Your task to perform on an android device: Open network settings Image 0: 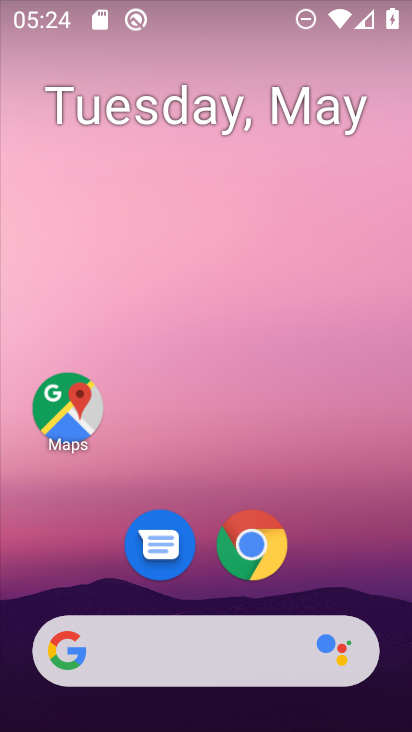
Step 0: drag from (338, 498) to (275, 37)
Your task to perform on an android device: Open network settings Image 1: 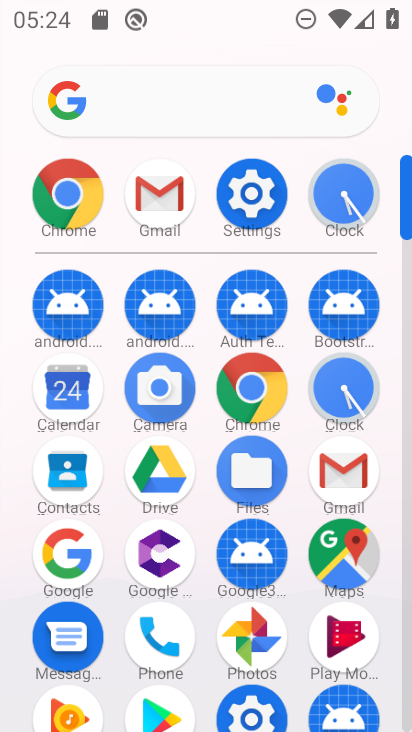
Step 1: drag from (7, 616) to (10, 291)
Your task to perform on an android device: Open network settings Image 2: 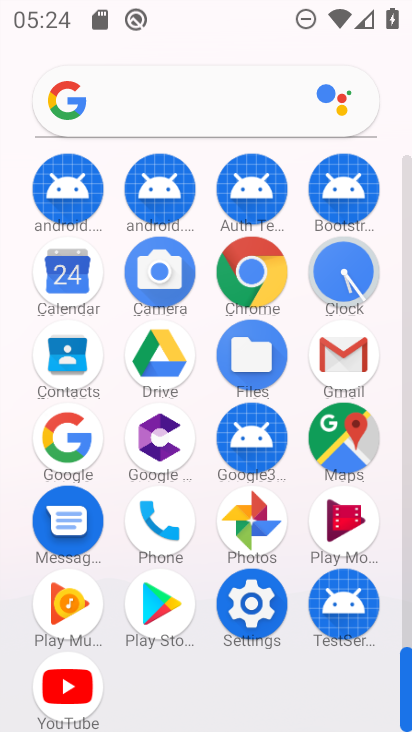
Step 2: click (250, 606)
Your task to perform on an android device: Open network settings Image 3: 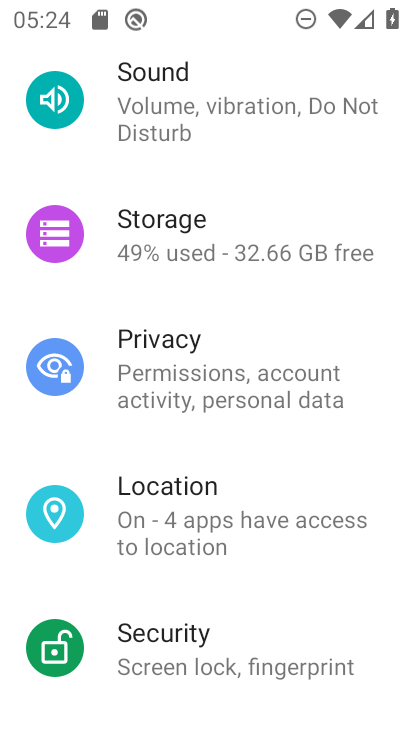
Step 3: drag from (225, 223) to (250, 635)
Your task to perform on an android device: Open network settings Image 4: 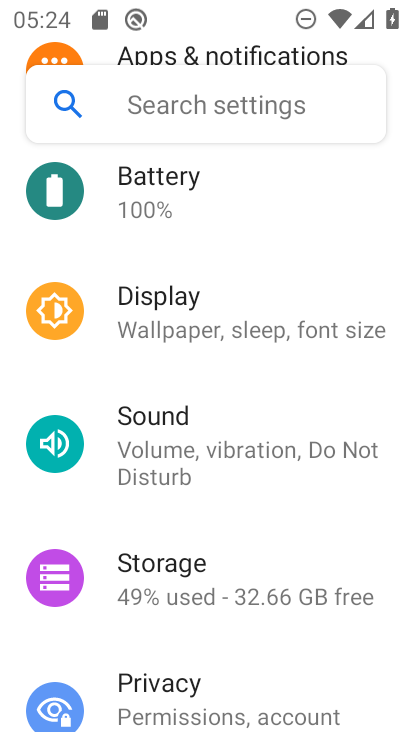
Step 4: drag from (275, 278) to (275, 521)
Your task to perform on an android device: Open network settings Image 5: 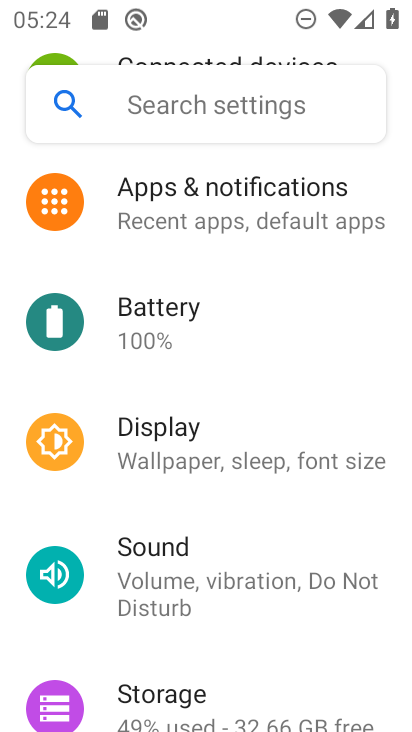
Step 5: drag from (239, 222) to (264, 604)
Your task to perform on an android device: Open network settings Image 6: 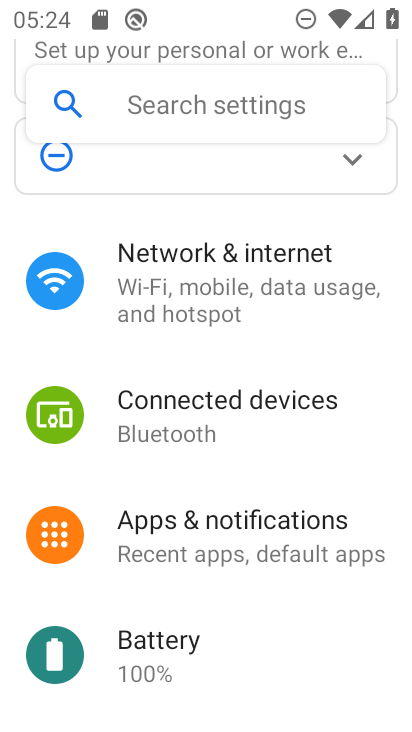
Step 6: click (276, 291)
Your task to perform on an android device: Open network settings Image 7: 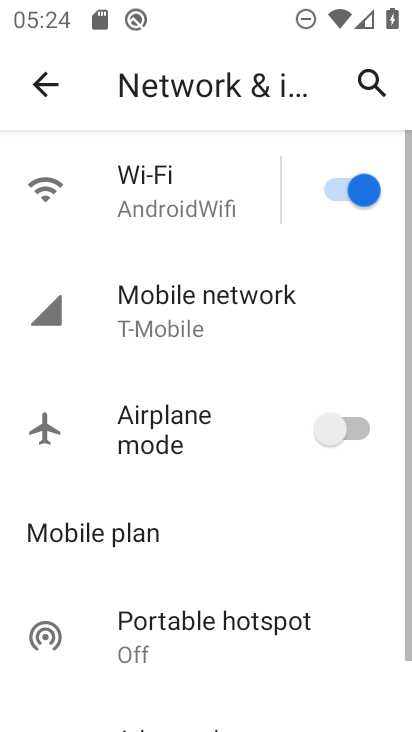
Step 7: drag from (213, 638) to (237, 191)
Your task to perform on an android device: Open network settings Image 8: 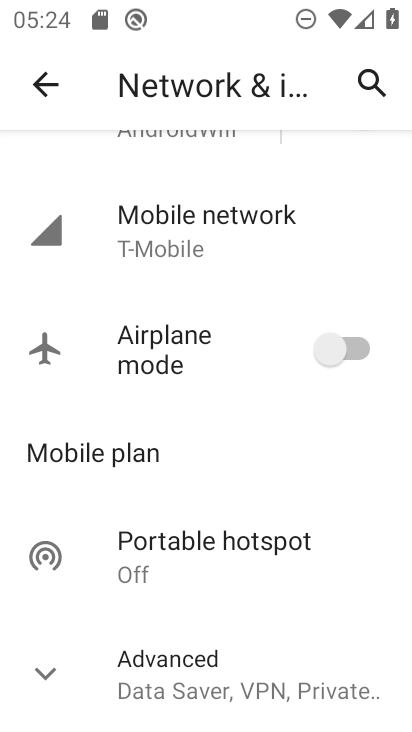
Step 8: drag from (232, 239) to (235, 501)
Your task to perform on an android device: Open network settings Image 9: 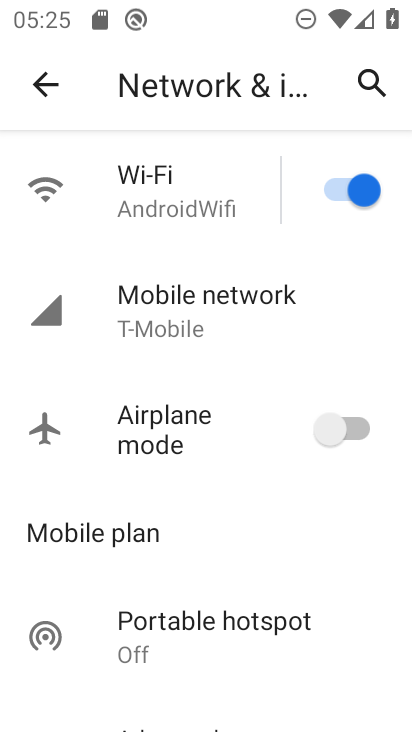
Step 9: drag from (252, 505) to (264, 250)
Your task to perform on an android device: Open network settings Image 10: 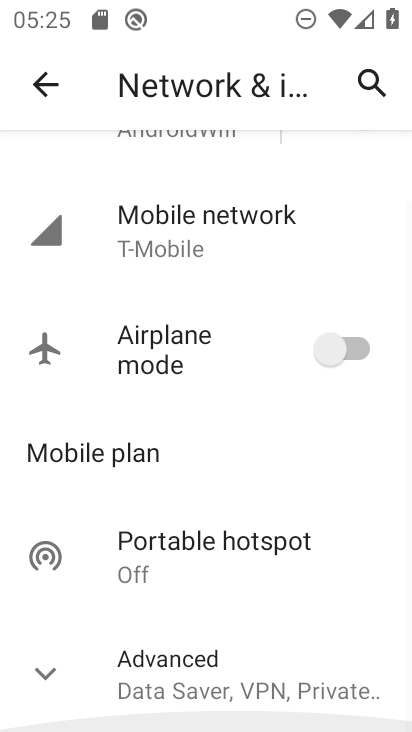
Step 10: drag from (264, 256) to (260, 496)
Your task to perform on an android device: Open network settings Image 11: 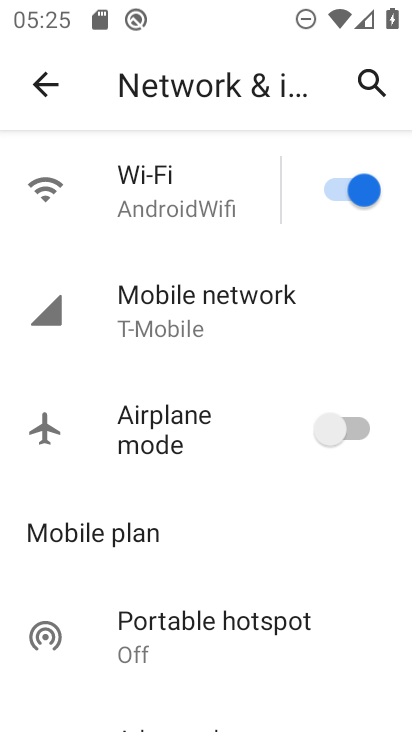
Step 11: drag from (225, 548) to (250, 233)
Your task to perform on an android device: Open network settings Image 12: 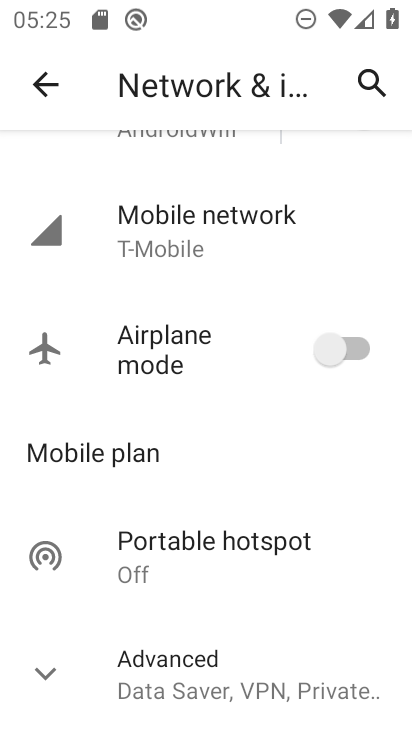
Step 12: drag from (230, 520) to (249, 188)
Your task to perform on an android device: Open network settings Image 13: 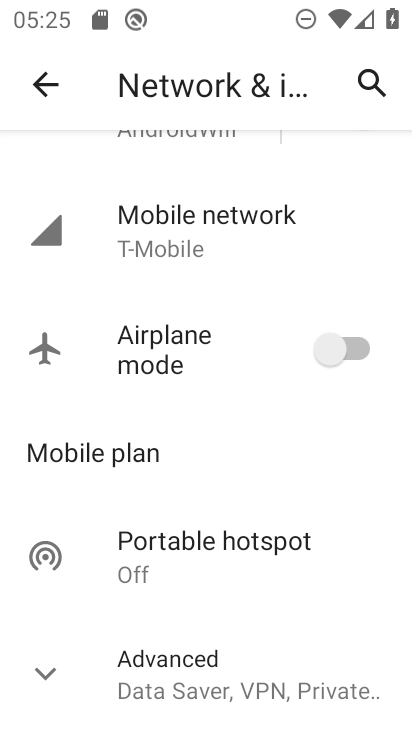
Step 13: click (43, 681)
Your task to perform on an android device: Open network settings Image 14: 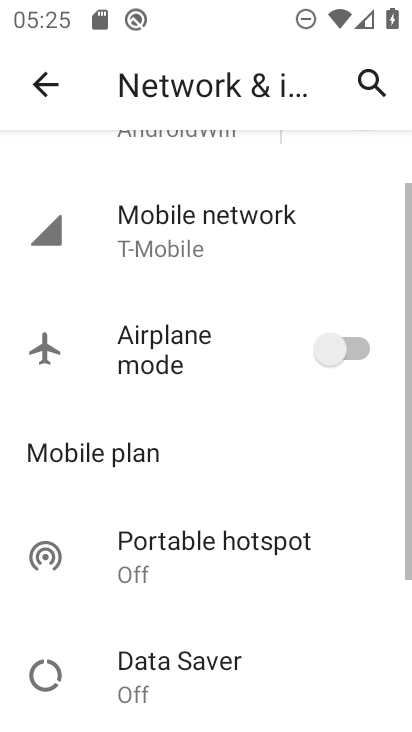
Step 14: task complete